Your task to perform on an android device: change the clock display to digital Image 0: 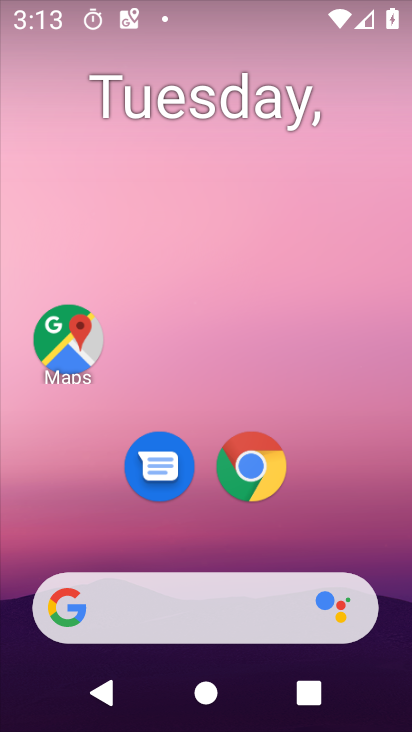
Step 0: drag from (374, 568) to (399, 182)
Your task to perform on an android device: change the clock display to digital Image 1: 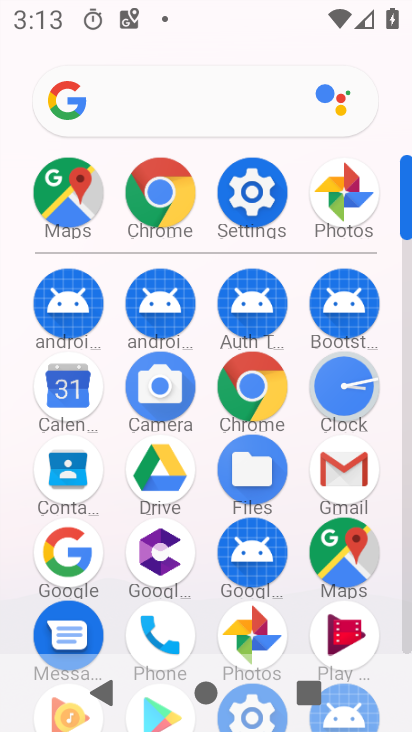
Step 1: click (353, 380)
Your task to perform on an android device: change the clock display to digital Image 2: 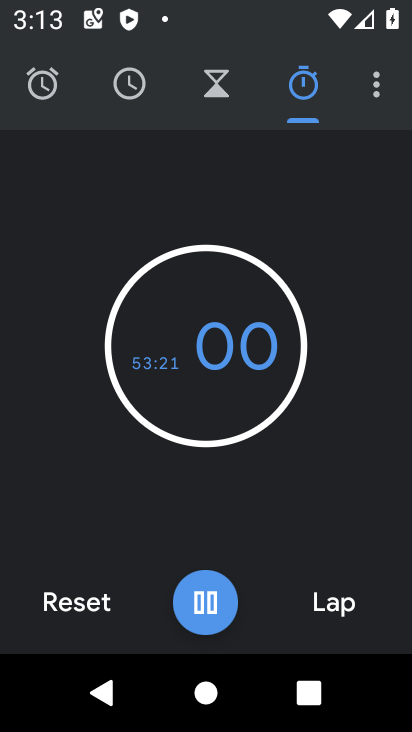
Step 2: click (378, 98)
Your task to perform on an android device: change the clock display to digital Image 3: 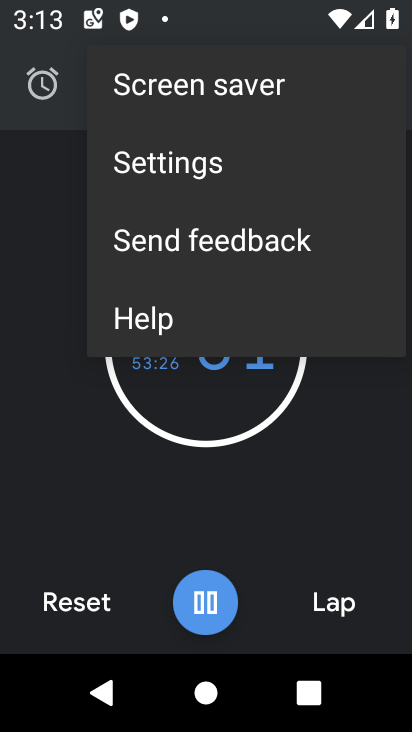
Step 3: click (231, 170)
Your task to perform on an android device: change the clock display to digital Image 4: 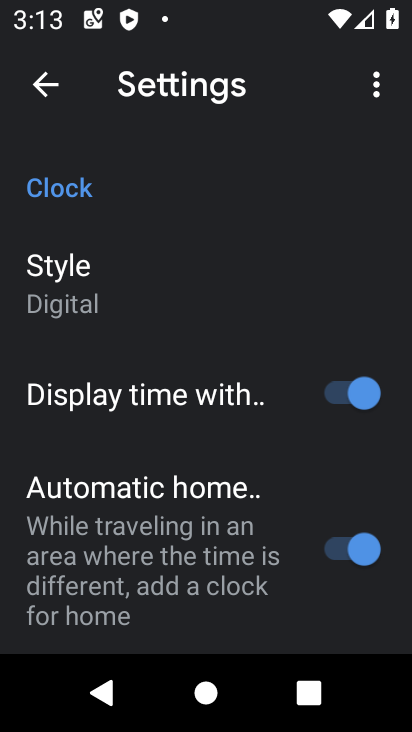
Step 4: task complete